Your task to perform on an android device: Go to Reddit.com Image 0: 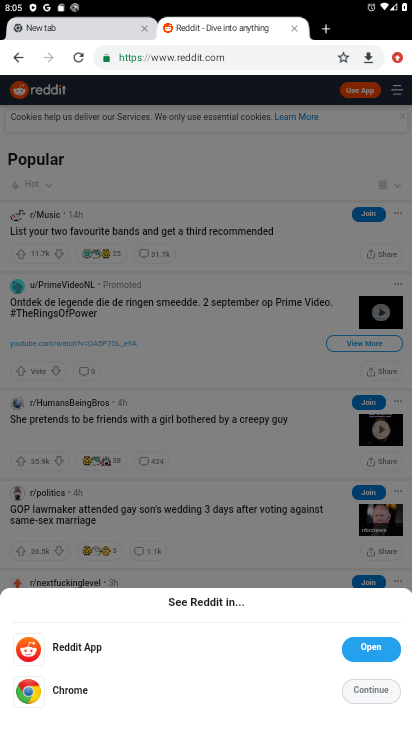
Step 0: click (357, 686)
Your task to perform on an android device: Go to Reddit.com Image 1: 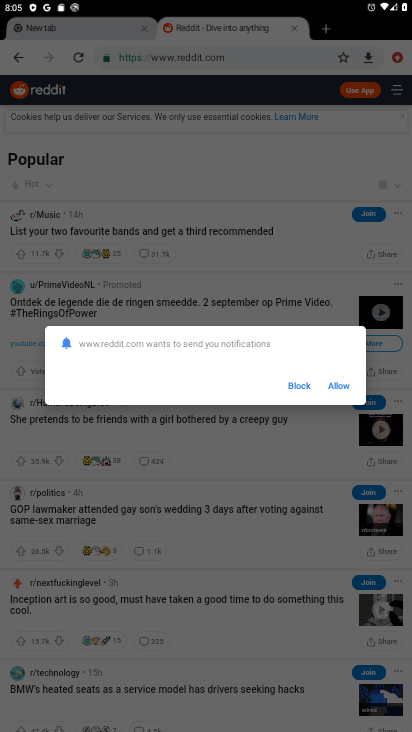
Step 1: click (340, 384)
Your task to perform on an android device: Go to Reddit.com Image 2: 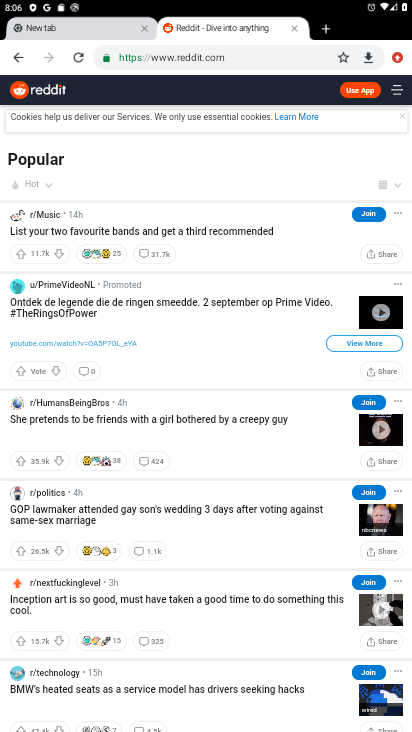
Step 2: task complete